Your task to perform on an android device: open app "The Home Depot" (install if not already installed) Image 0: 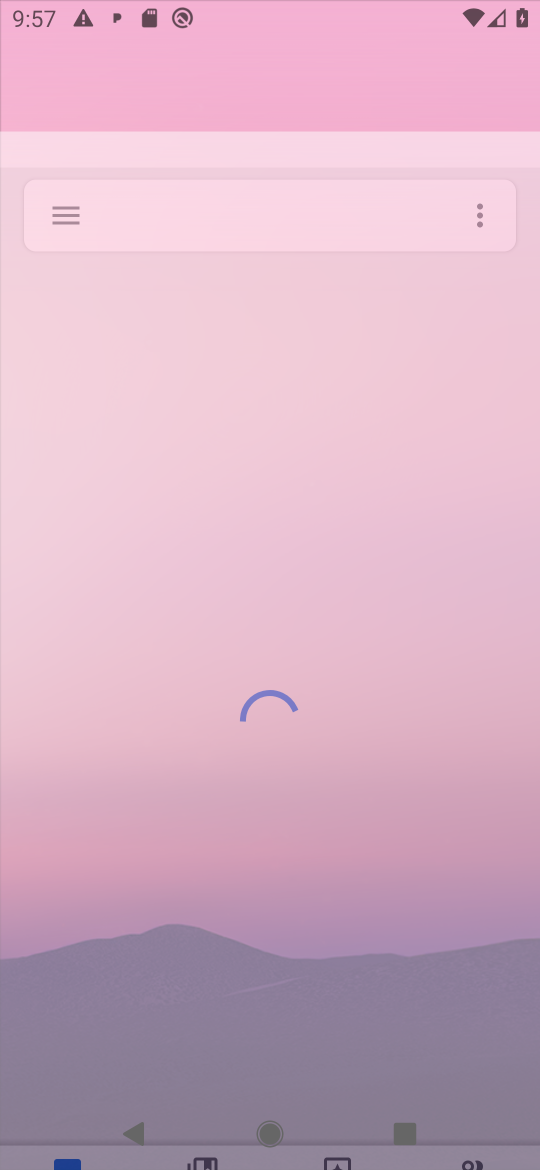
Step 0: press home button
Your task to perform on an android device: open app "The Home Depot" (install if not already installed) Image 1: 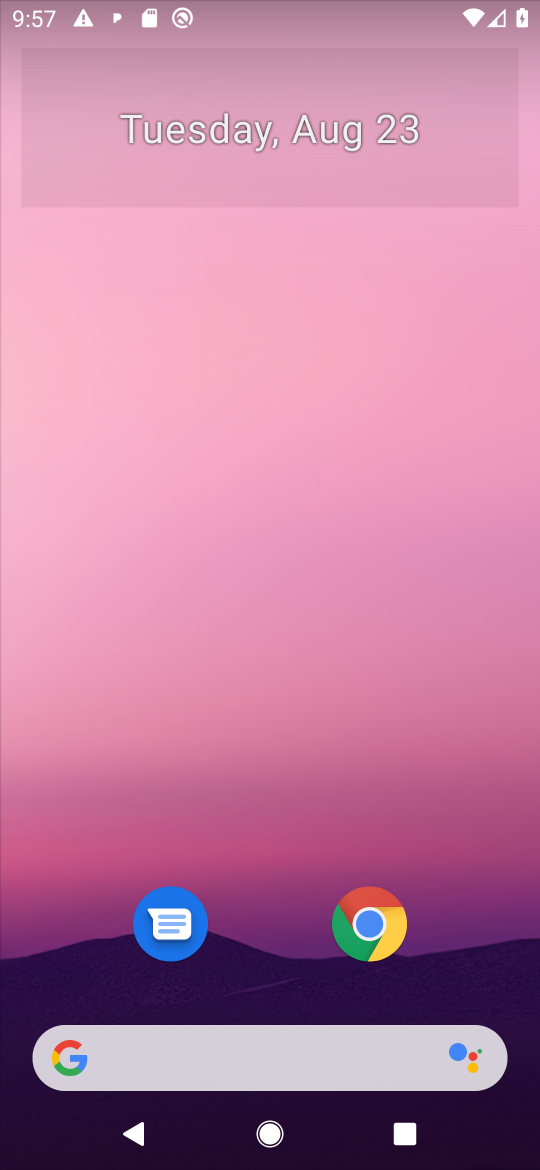
Step 1: drag from (461, 972) to (460, 86)
Your task to perform on an android device: open app "The Home Depot" (install if not already installed) Image 2: 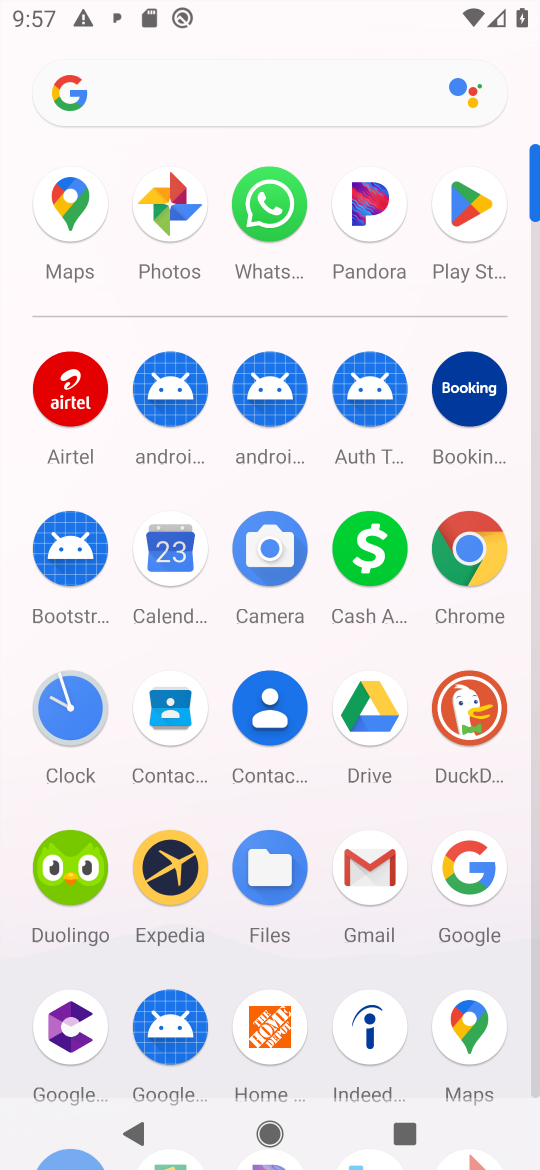
Step 2: click (467, 237)
Your task to perform on an android device: open app "The Home Depot" (install if not already installed) Image 3: 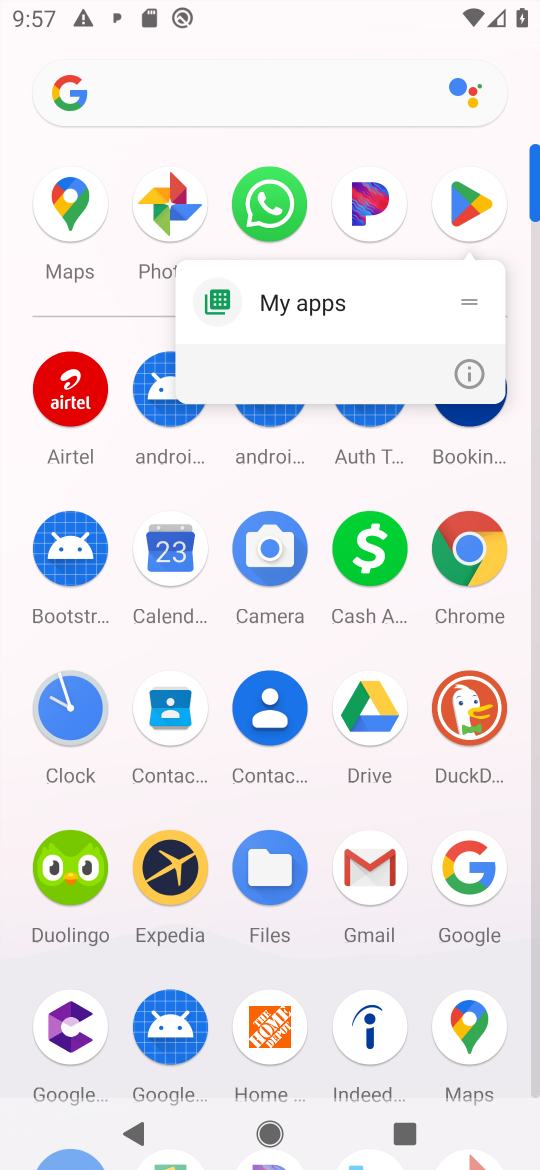
Step 3: click (478, 201)
Your task to perform on an android device: open app "The Home Depot" (install if not already installed) Image 4: 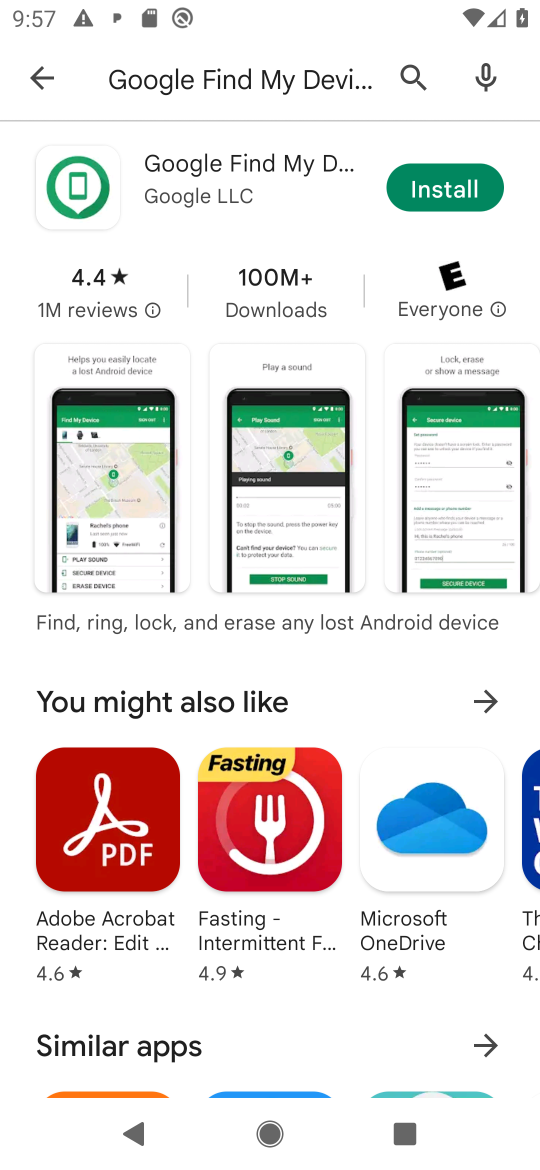
Step 4: press back button
Your task to perform on an android device: open app "The Home Depot" (install if not already installed) Image 5: 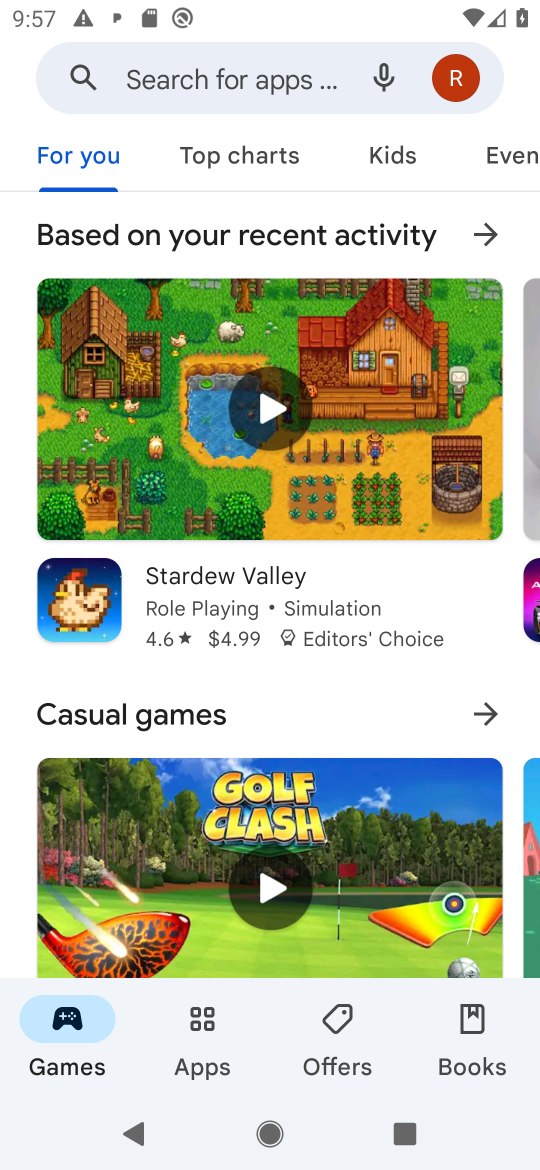
Step 5: click (274, 63)
Your task to perform on an android device: open app "The Home Depot" (install if not already installed) Image 6: 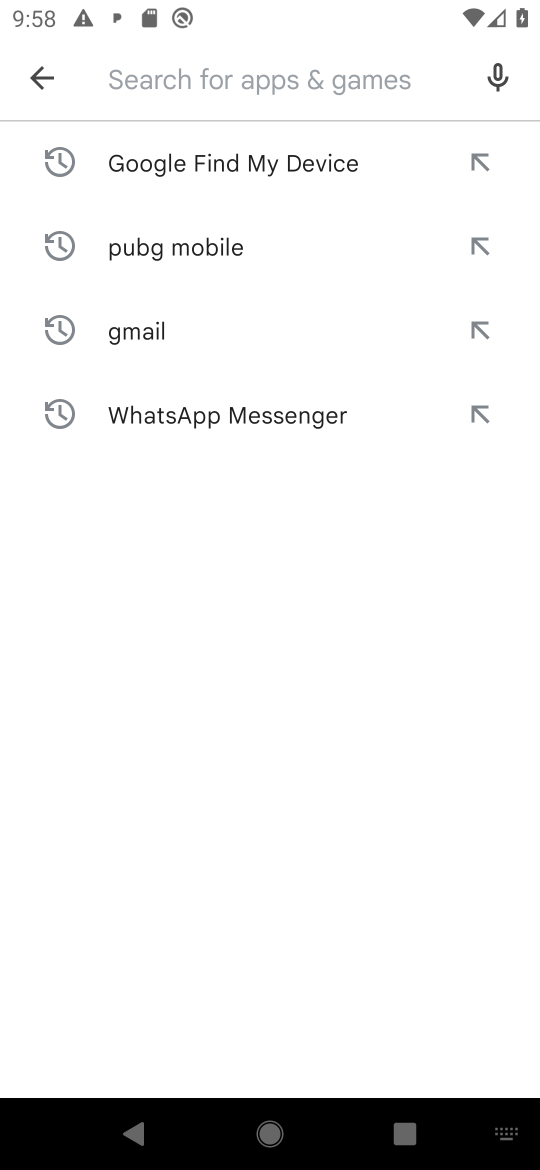
Step 6: type "The Home Depot"
Your task to perform on an android device: open app "The Home Depot" (install if not already installed) Image 7: 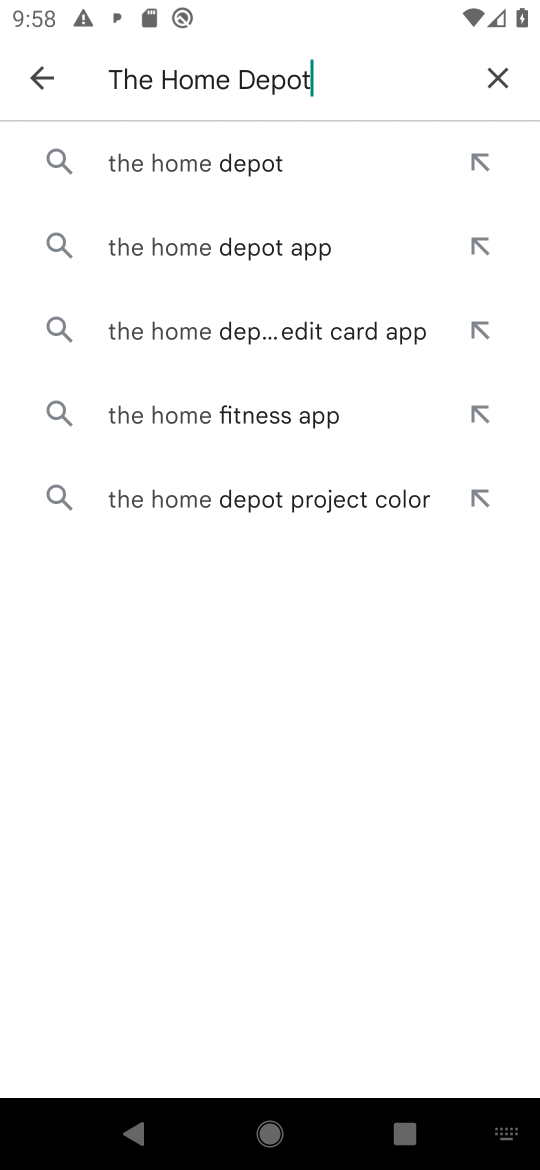
Step 7: press enter
Your task to perform on an android device: open app "The Home Depot" (install if not already installed) Image 8: 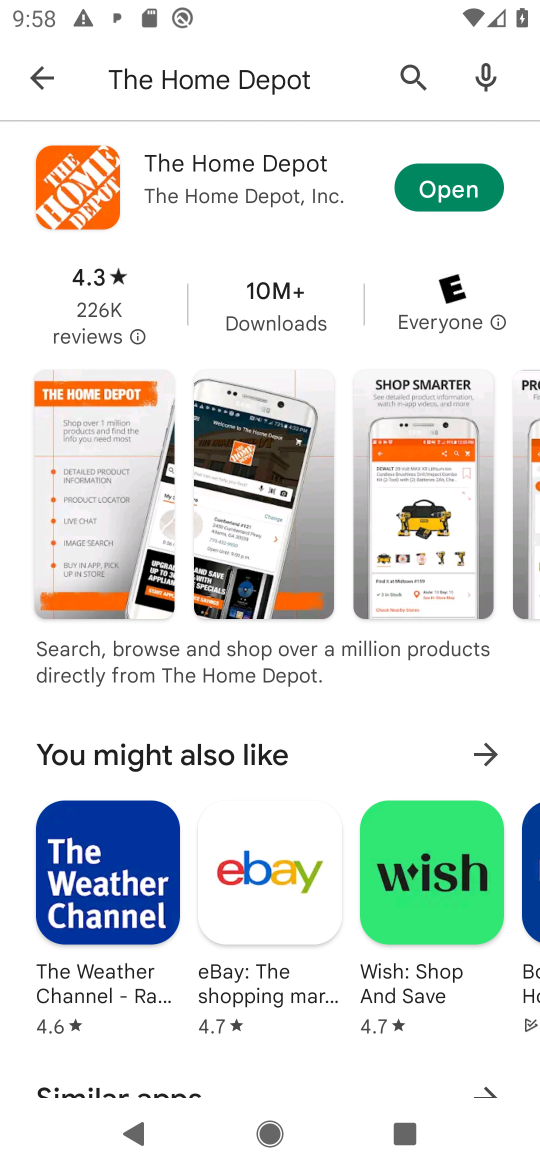
Step 8: click (449, 188)
Your task to perform on an android device: open app "The Home Depot" (install if not already installed) Image 9: 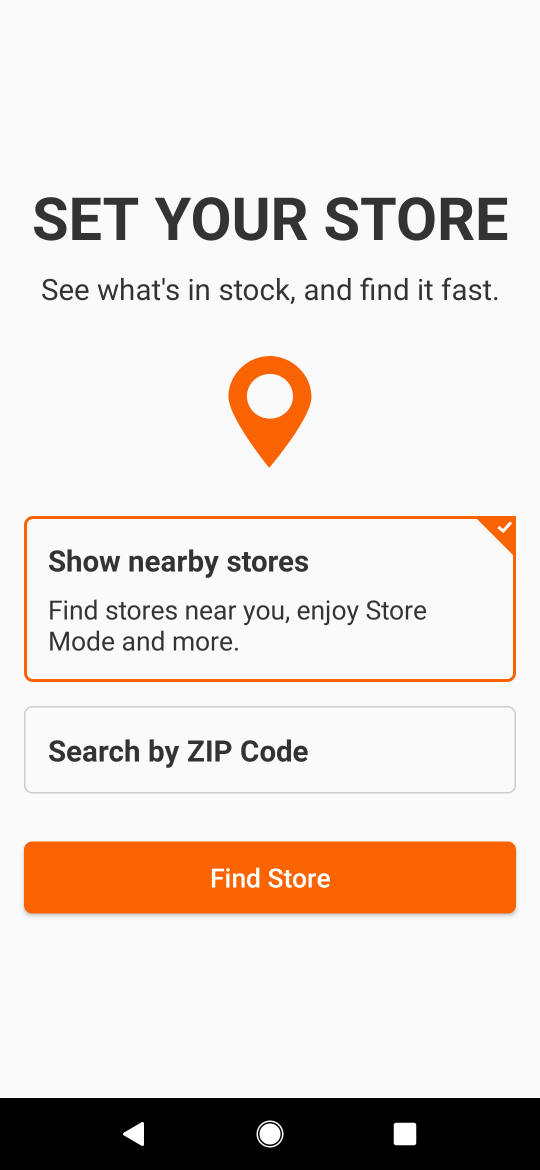
Step 9: task complete